Your task to perform on an android device: What is the recent news? Image 0: 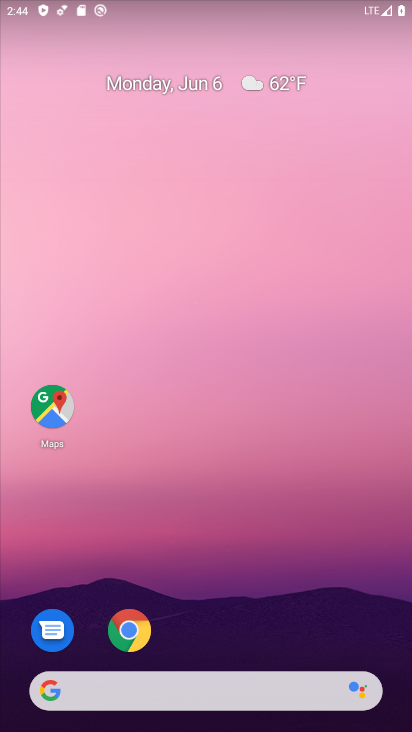
Step 0: press home button
Your task to perform on an android device: What is the recent news? Image 1: 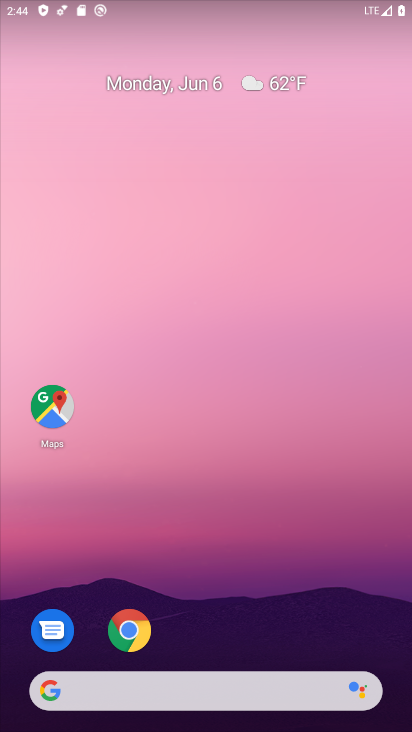
Step 1: click (133, 629)
Your task to perform on an android device: What is the recent news? Image 2: 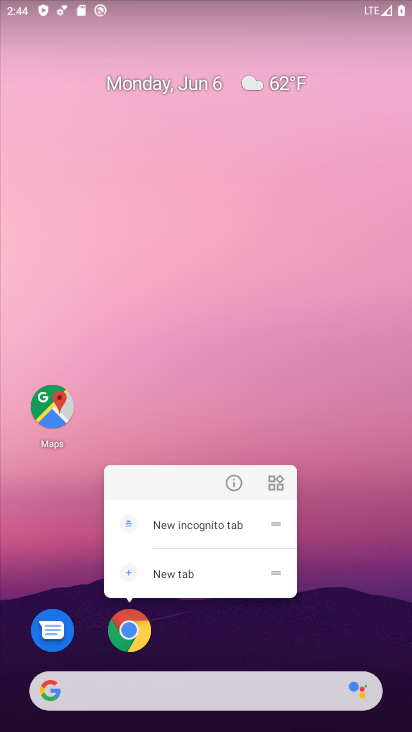
Step 2: click (133, 629)
Your task to perform on an android device: What is the recent news? Image 3: 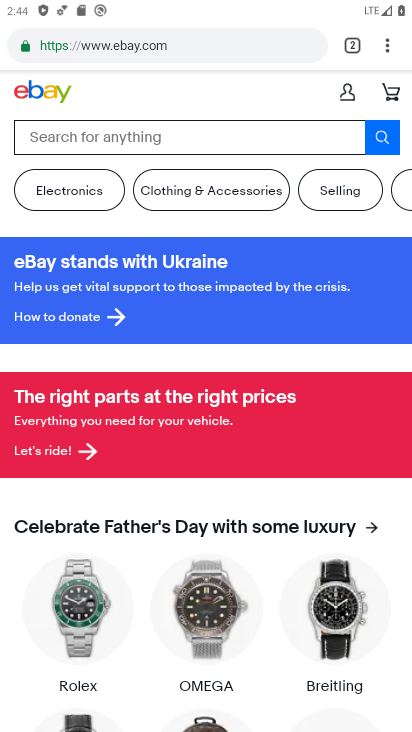
Step 3: click (192, 49)
Your task to perform on an android device: What is the recent news? Image 4: 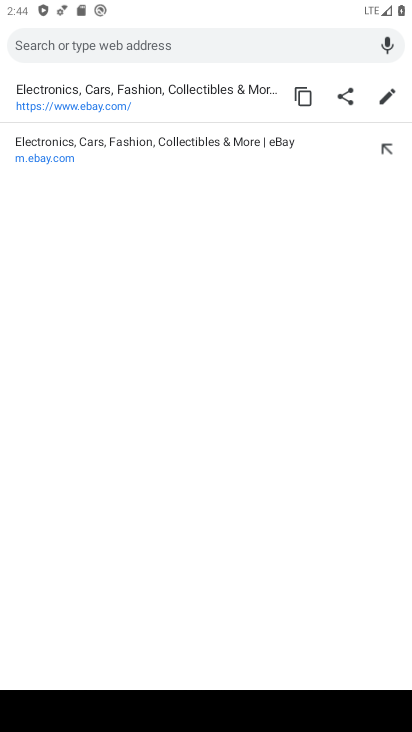
Step 4: type "What is the recent news?"
Your task to perform on an android device: What is the recent news? Image 5: 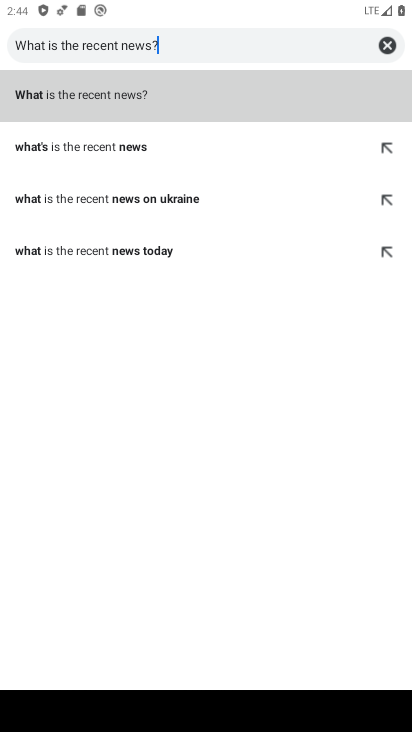
Step 5: type ""
Your task to perform on an android device: What is the recent news? Image 6: 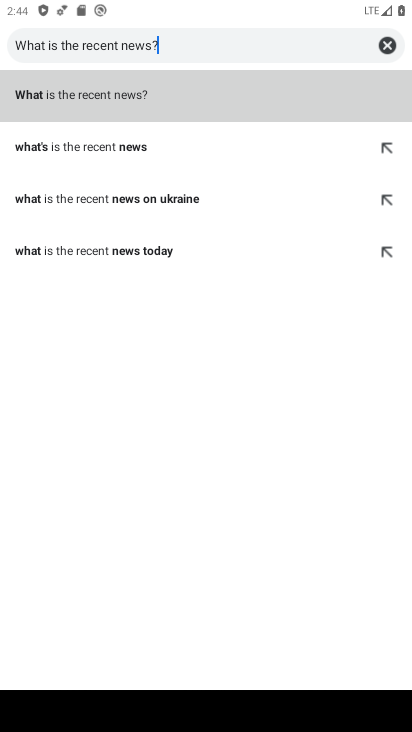
Step 6: click (203, 94)
Your task to perform on an android device: What is the recent news? Image 7: 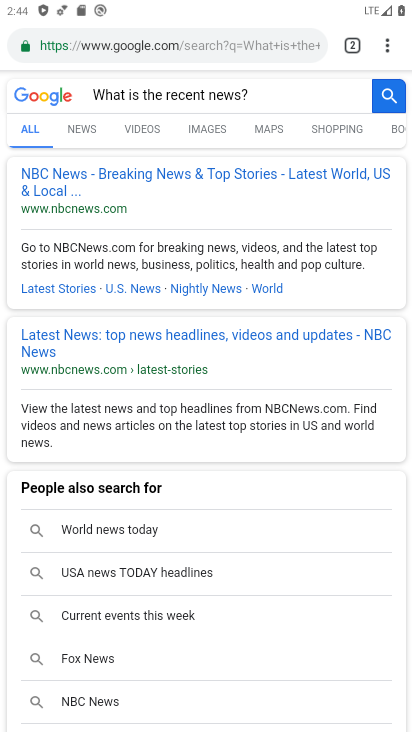
Step 7: task complete